Your task to perform on an android device: uninstall "Contacts" Image 0: 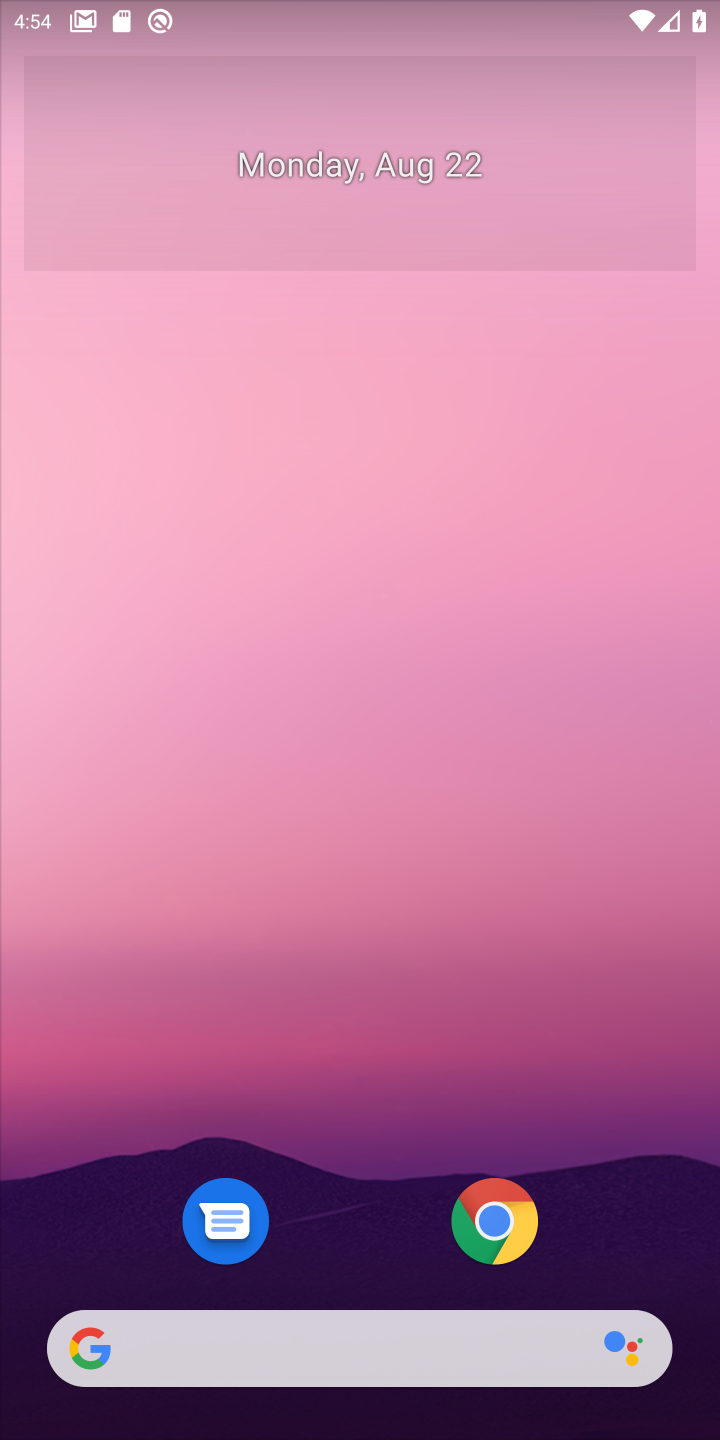
Step 0: drag from (287, 1100) to (32, 171)
Your task to perform on an android device: uninstall "Contacts" Image 1: 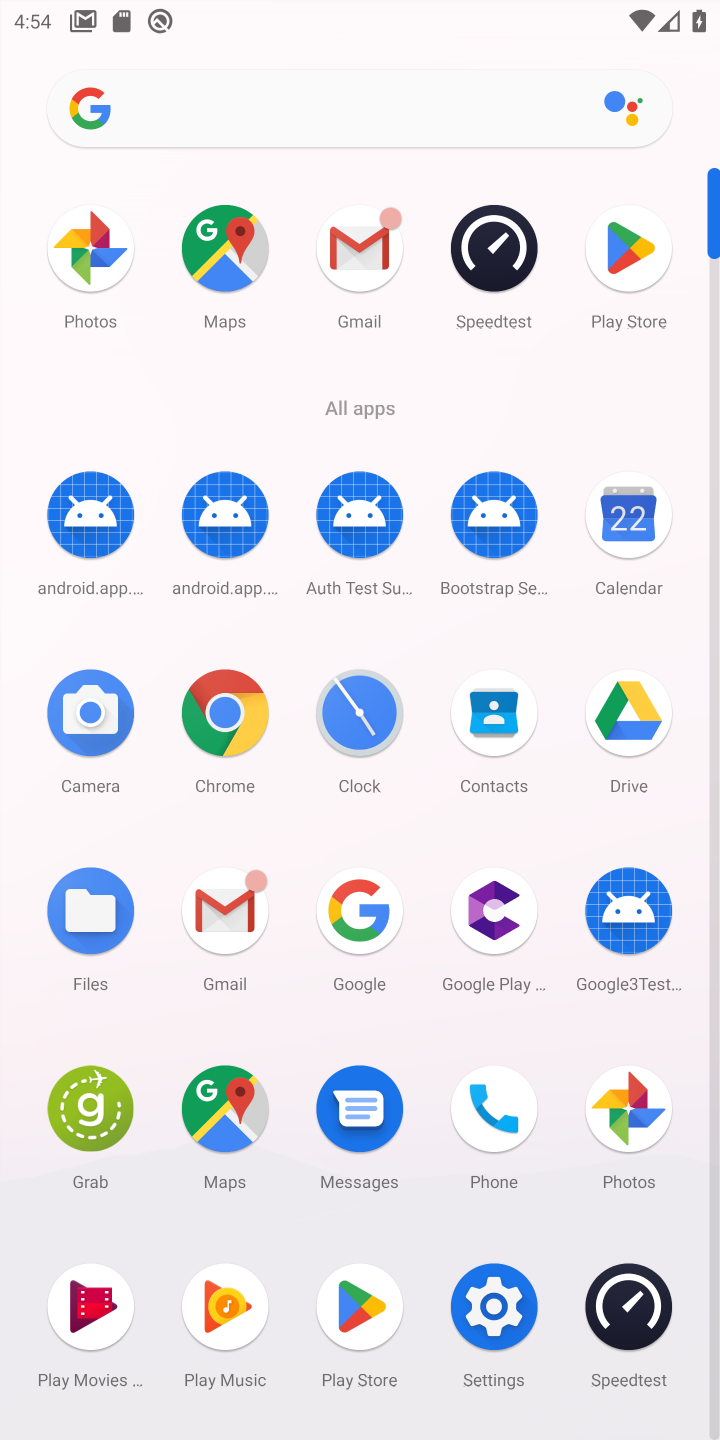
Step 1: click (635, 253)
Your task to perform on an android device: uninstall "Contacts" Image 2: 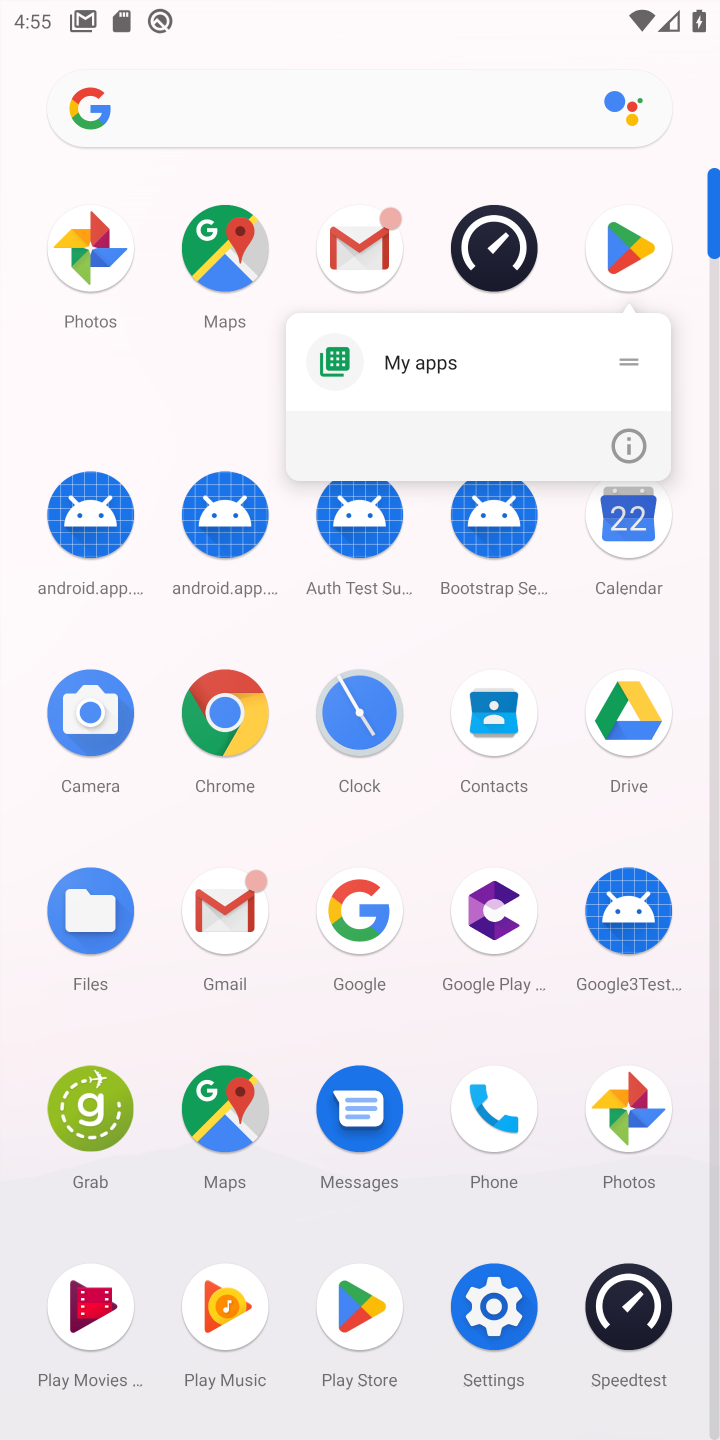
Step 2: click (635, 251)
Your task to perform on an android device: uninstall "Contacts" Image 3: 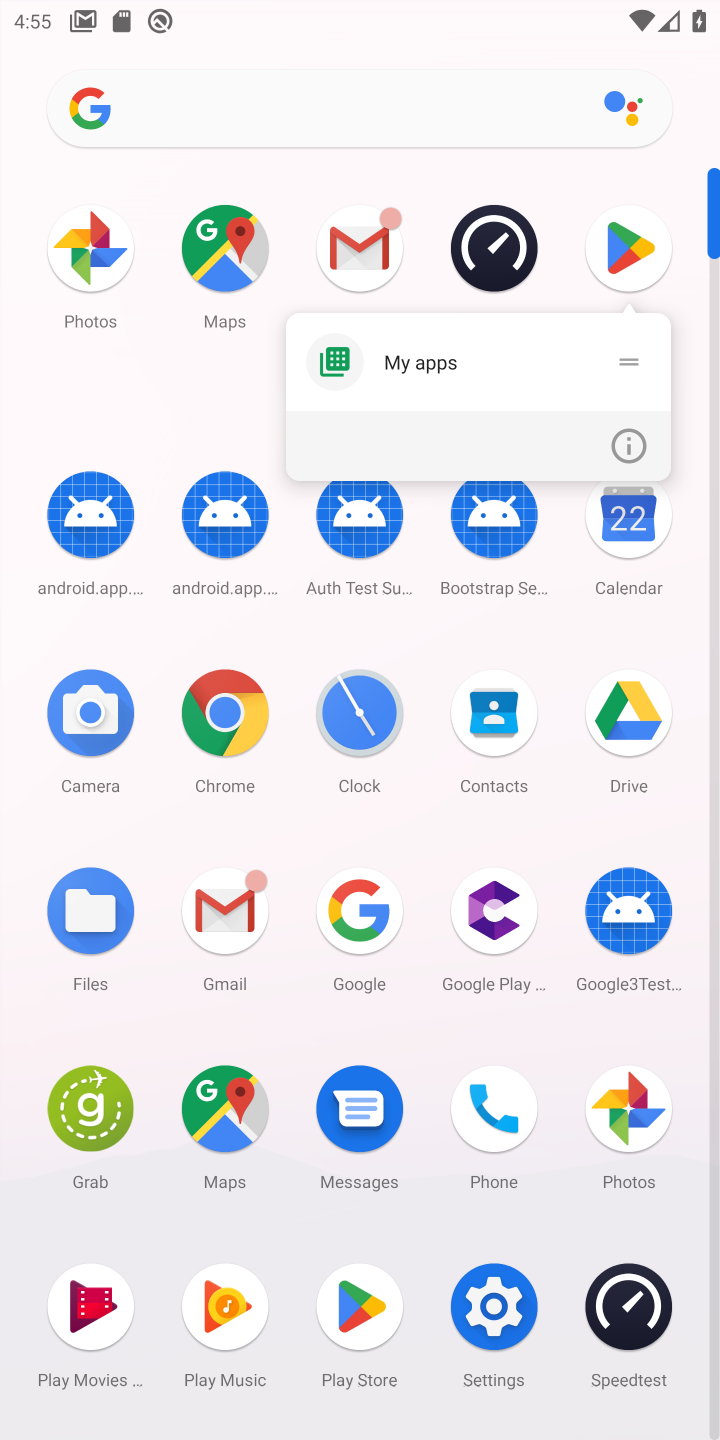
Step 3: click (635, 249)
Your task to perform on an android device: uninstall "Contacts" Image 4: 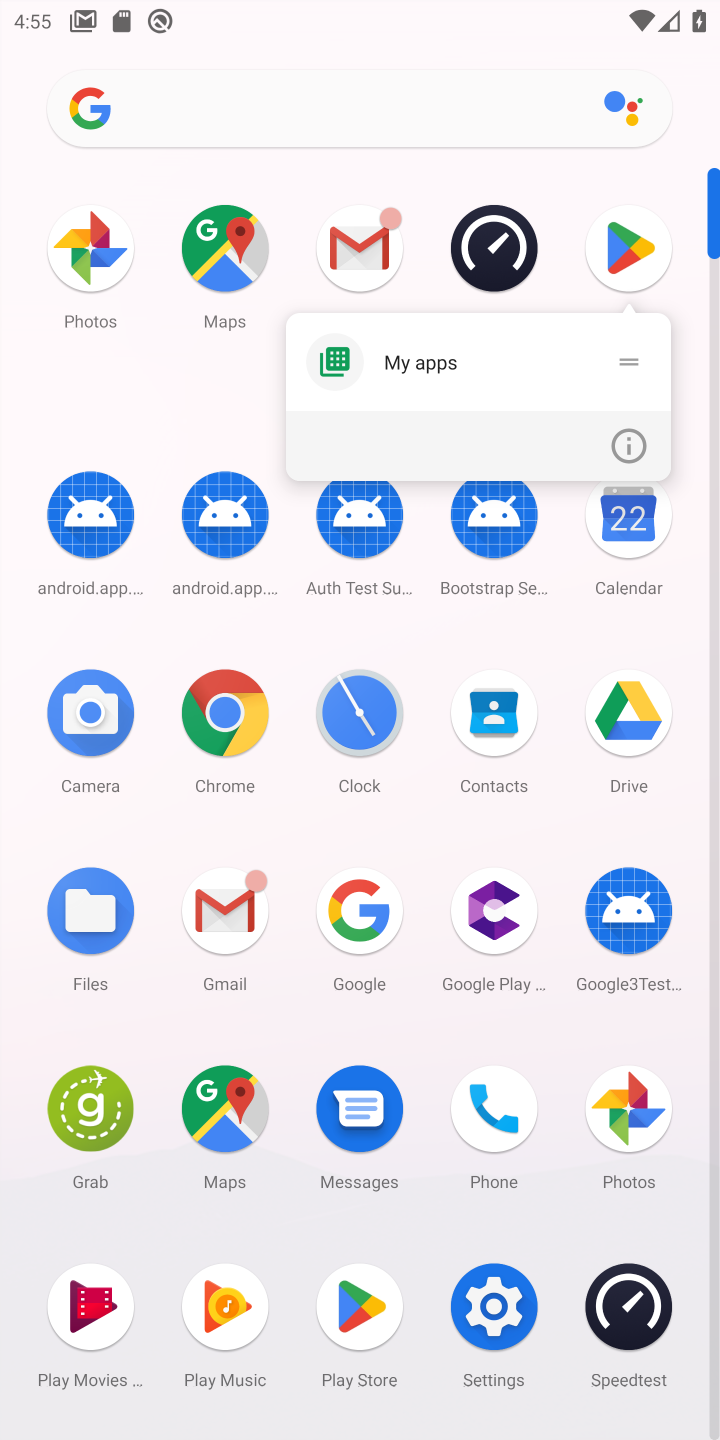
Step 4: click (635, 249)
Your task to perform on an android device: uninstall "Contacts" Image 5: 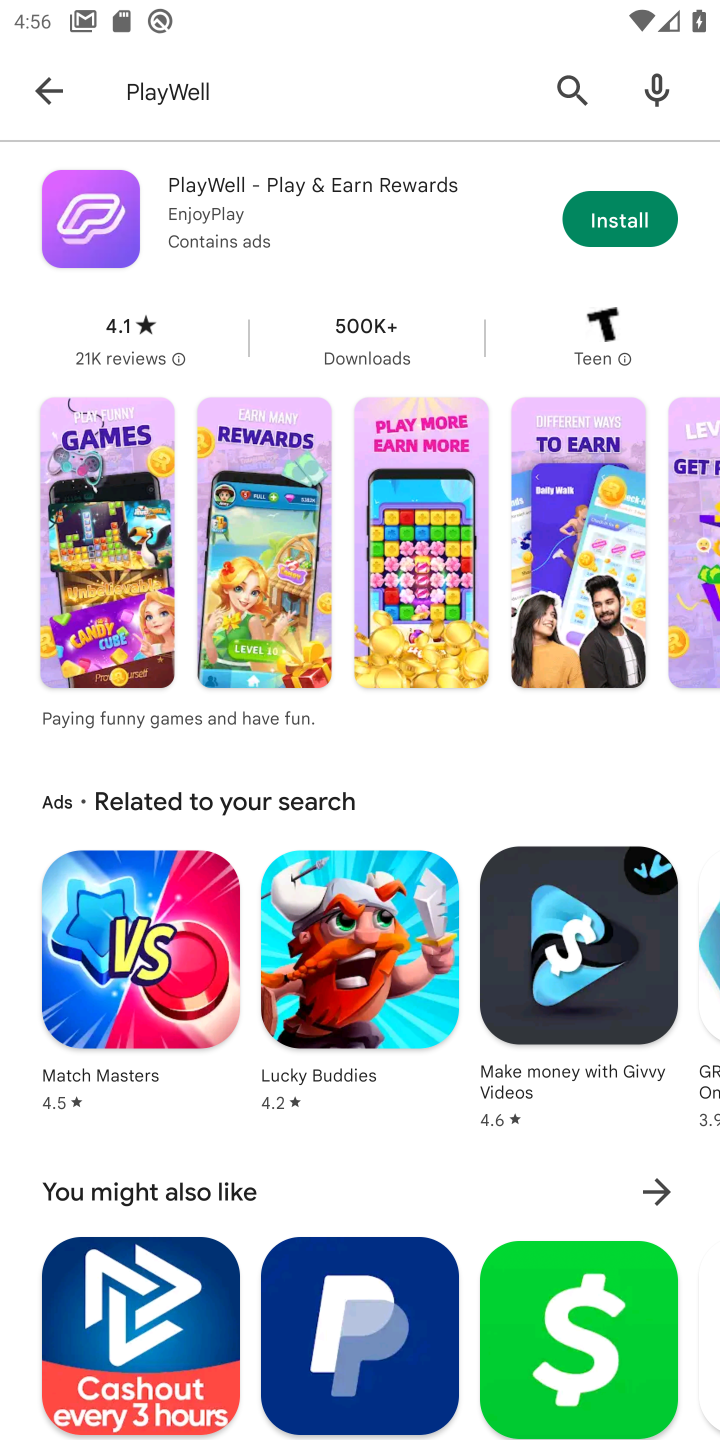
Step 5: press back button
Your task to perform on an android device: uninstall "Contacts" Image 6: 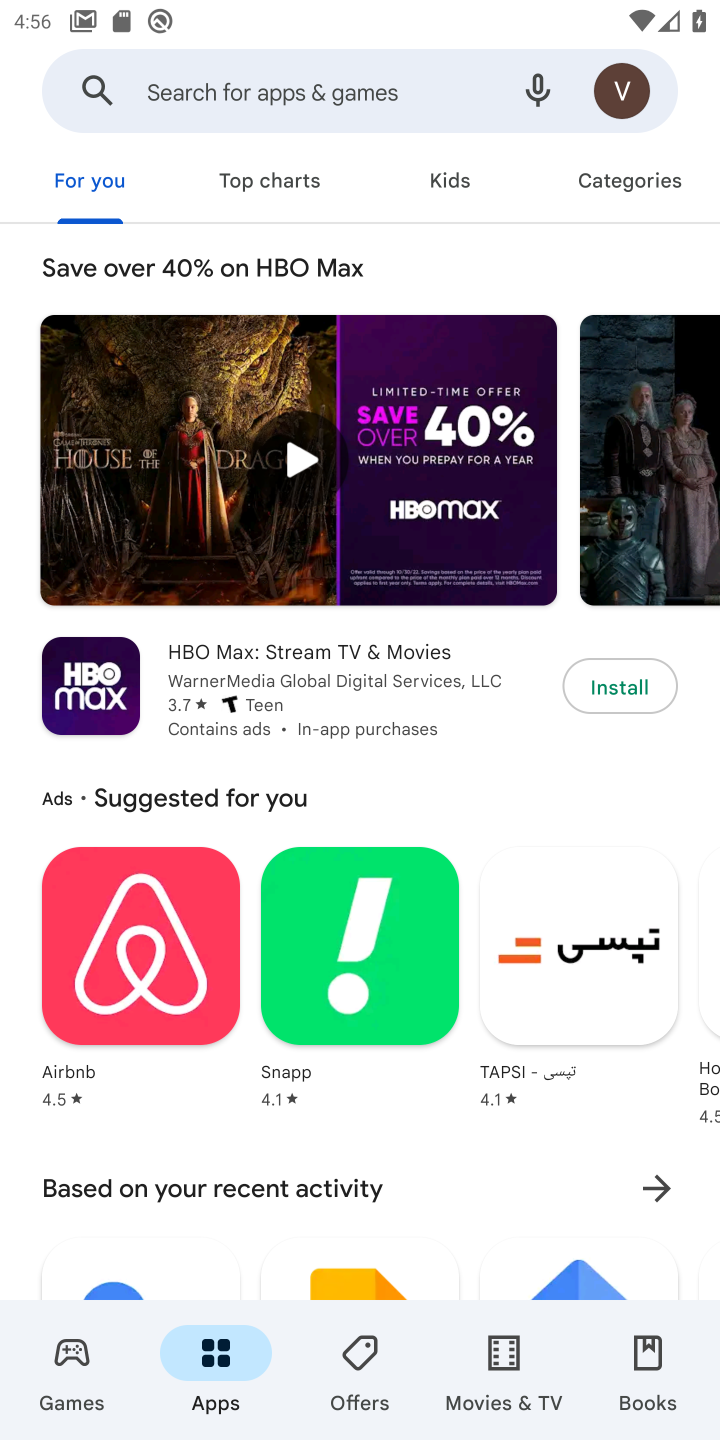
Step 6: click (352, 93)
Your task to perform on an android device: uninstall "Contacts" Image 7: 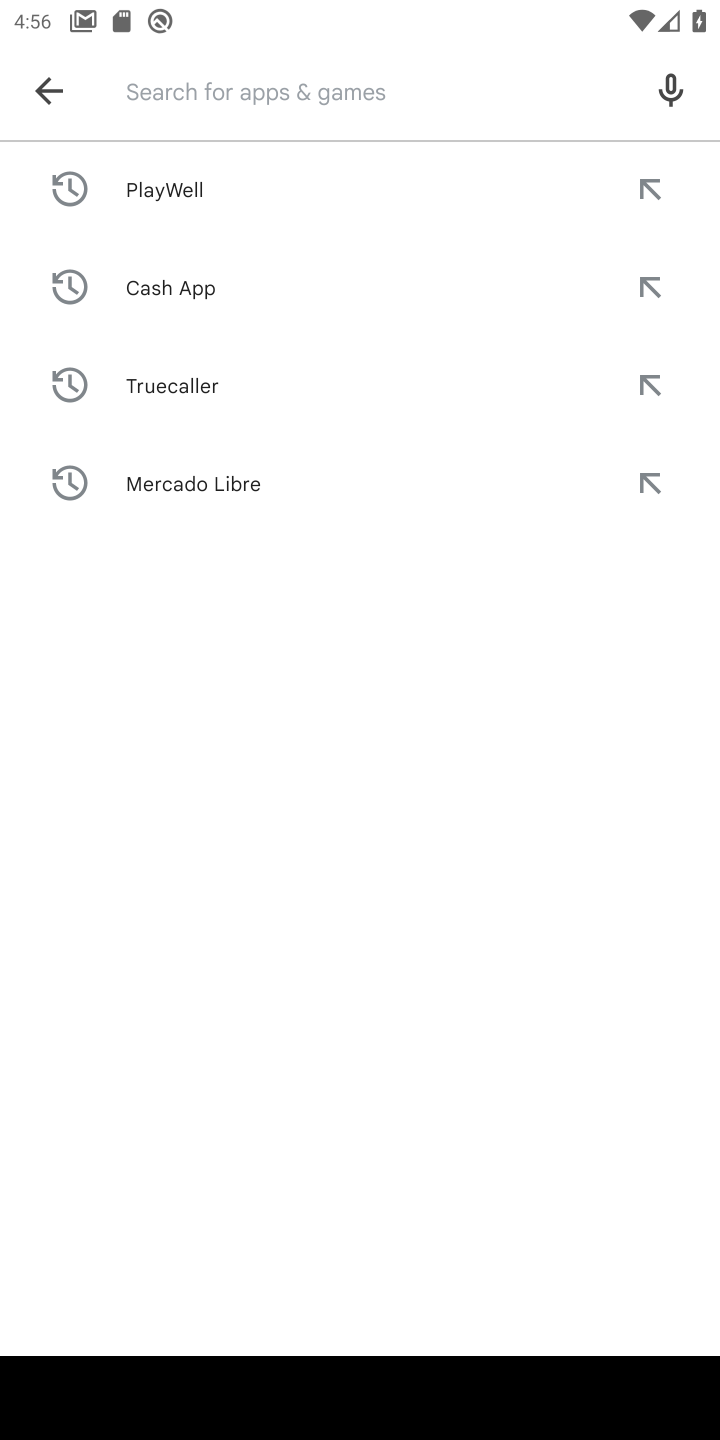
Step 7: type "Contacts"
Your task to perform on an android device: uninstall "Contacts" Image 8: 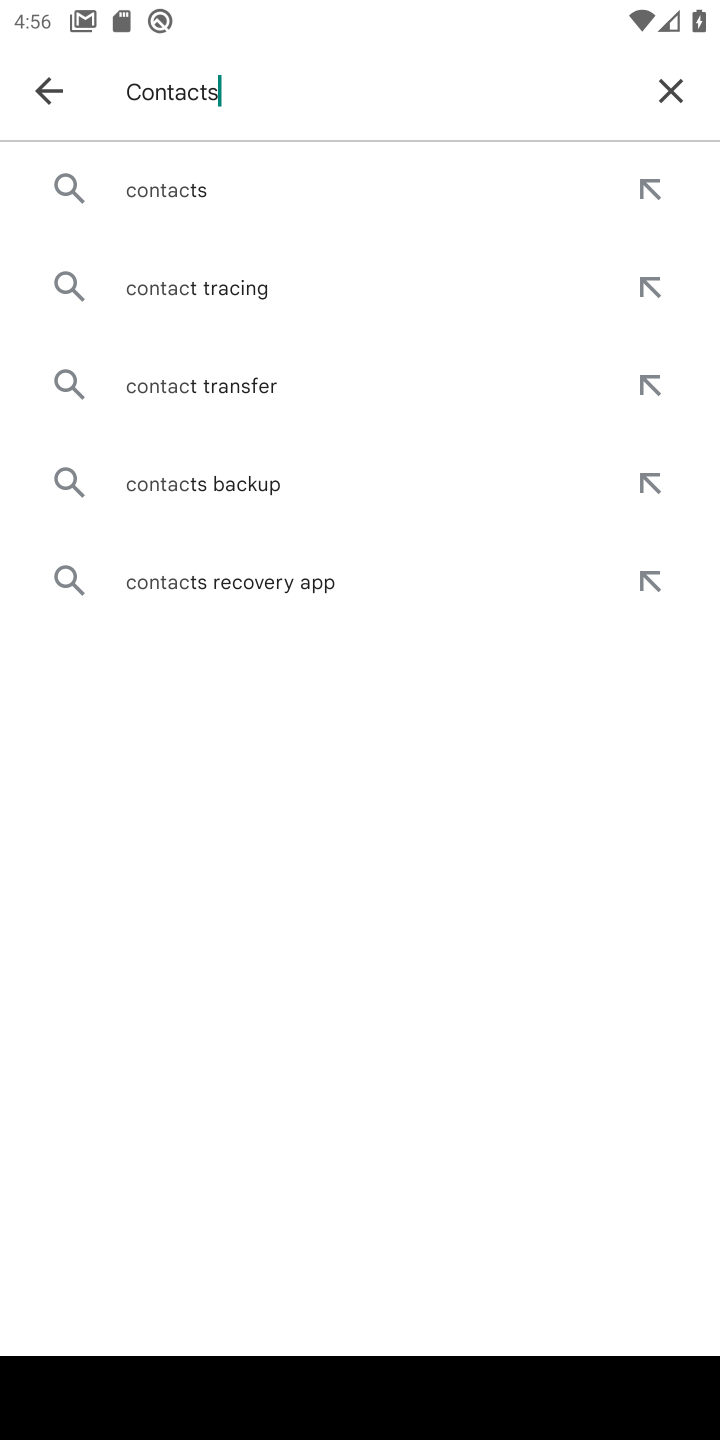
Step 8: press enter
Your task to perform on an android device: uninstall "Contacts" Image 9: 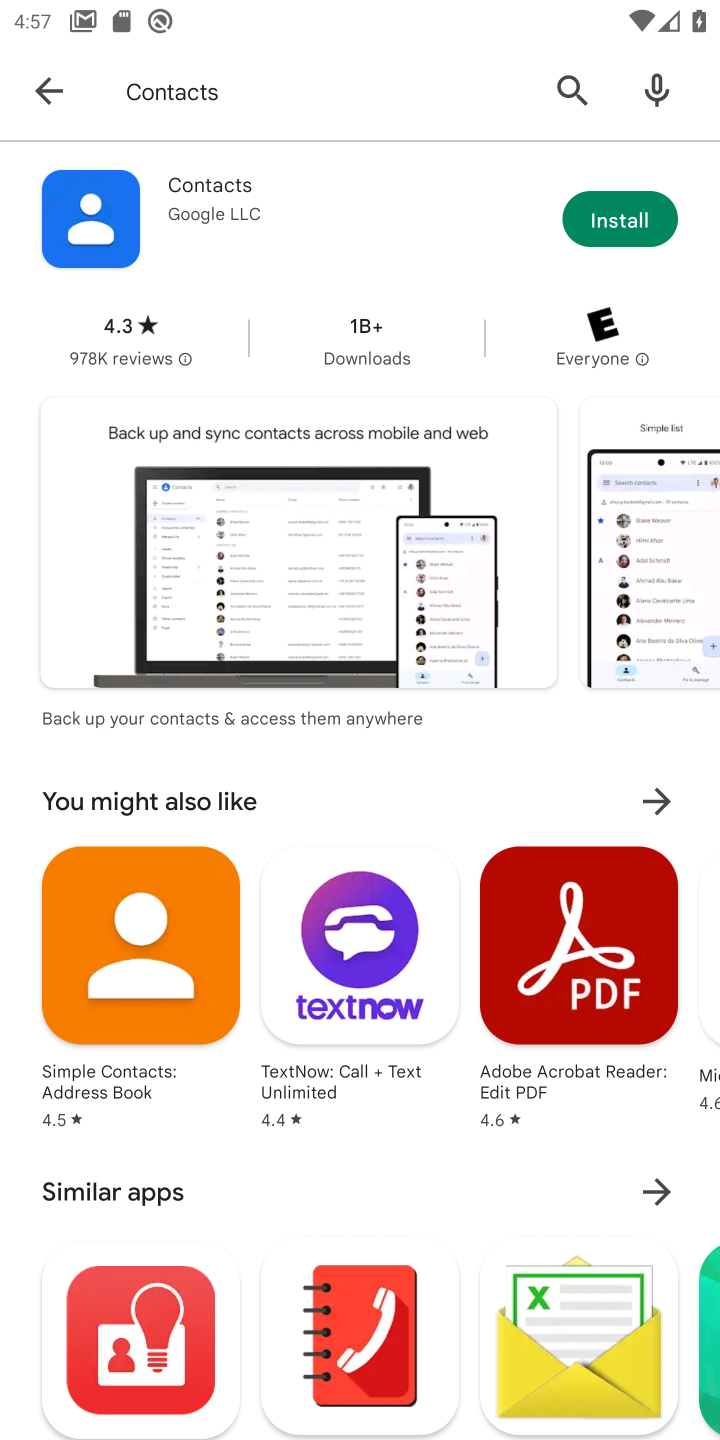
Step 9: task complete